Your task to perform on an android device: Go to Yahoo.com Image 0: 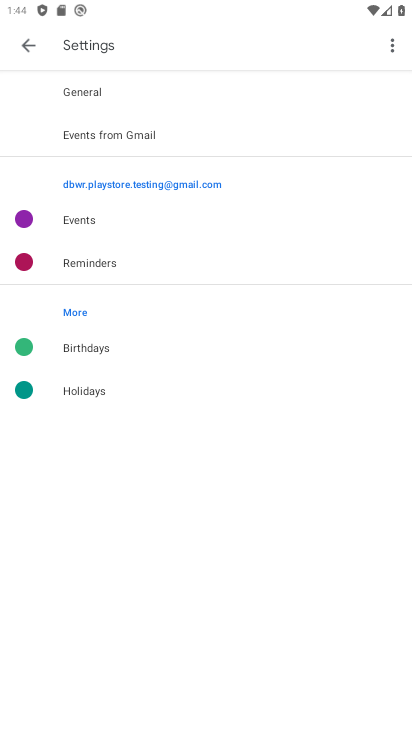
Step 0: press home button
Your task to perform on an android device: Go to Yahoo.com Image 1: 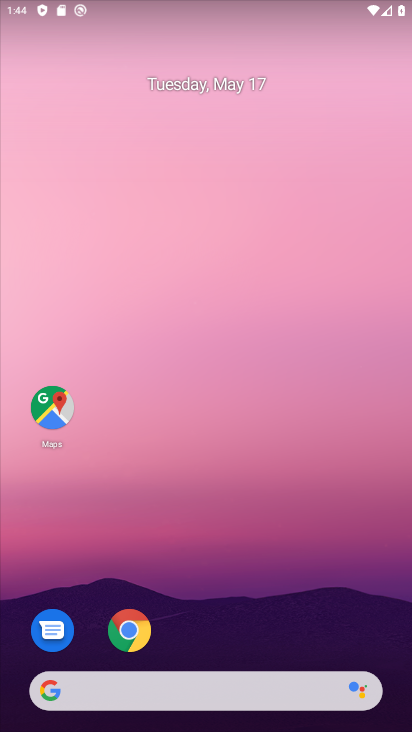
Step 1: drag from (398, 553) to (342, 88)
Your task to perform on an android device: Go to Yahoo.com Image 2: 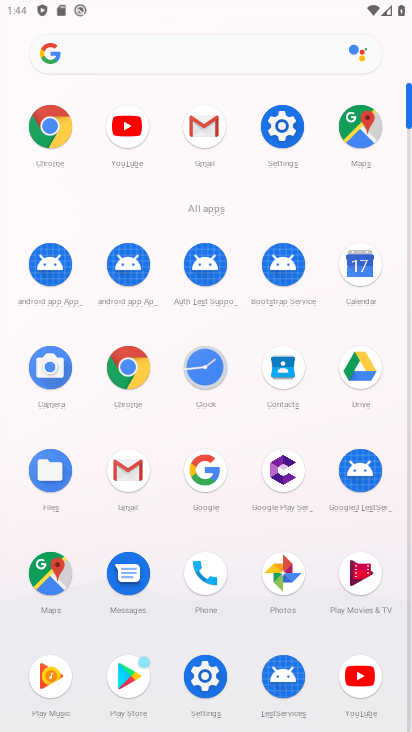
Step 2: click (140, 377)
Your task to perform on an android device: Go to Yahoo.com Image 3: 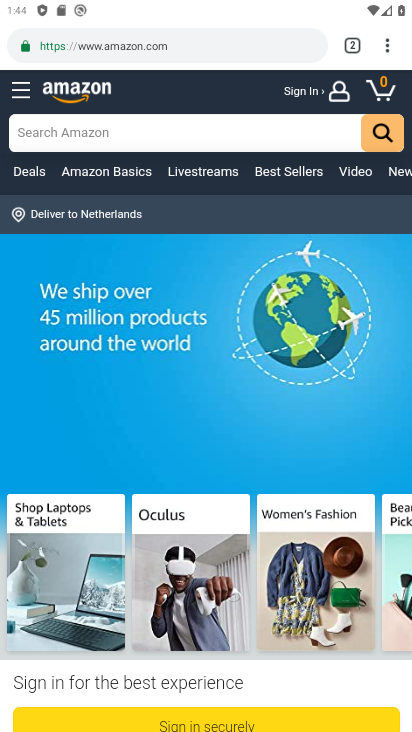
Step 3: click (207, 44)
Your task to perform on an android device: Go to Yahoo.com Image 4: 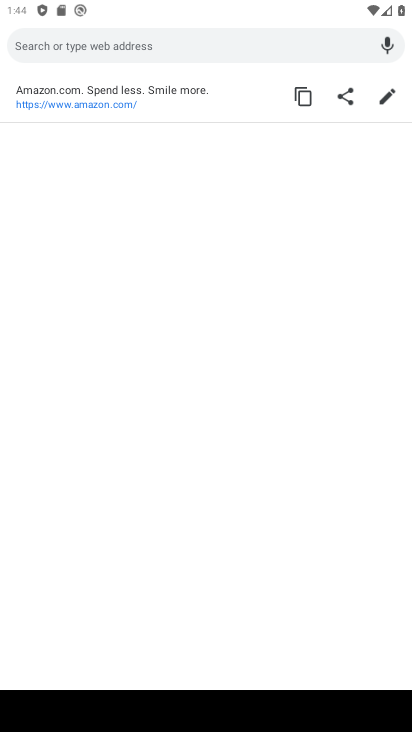
Step 4: type "yahoo.com"
Your task to perform on an android device: Go to Yahoo.com Image 5: 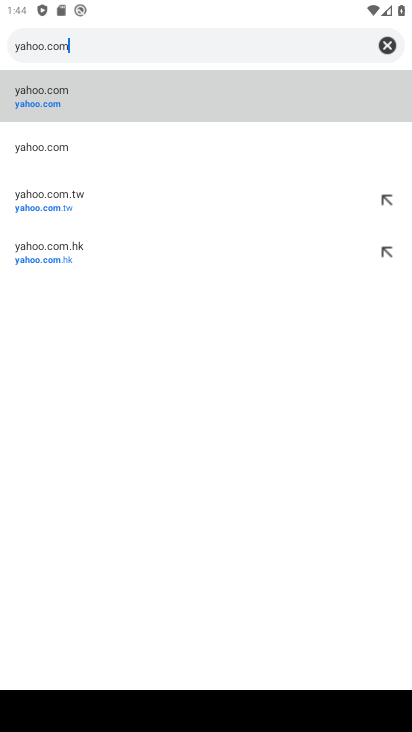
Step 5: click (174, 115)
Your task to perform on an android device: Go to Yahoo.com Image 6: 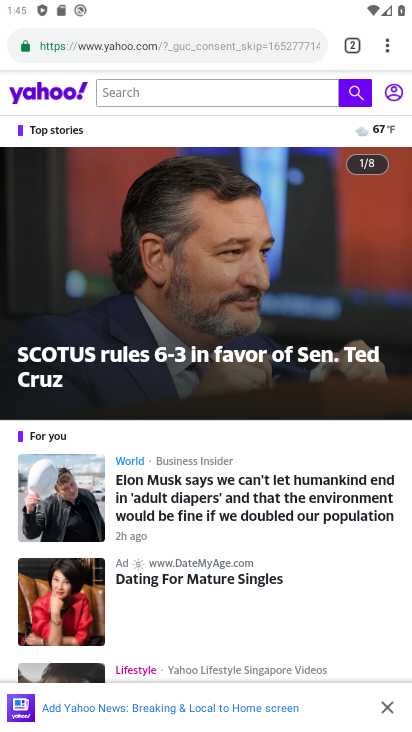
Step 6: task complete